Your task to perform on an android device: Open Chrome and go to the settings page Image 0: 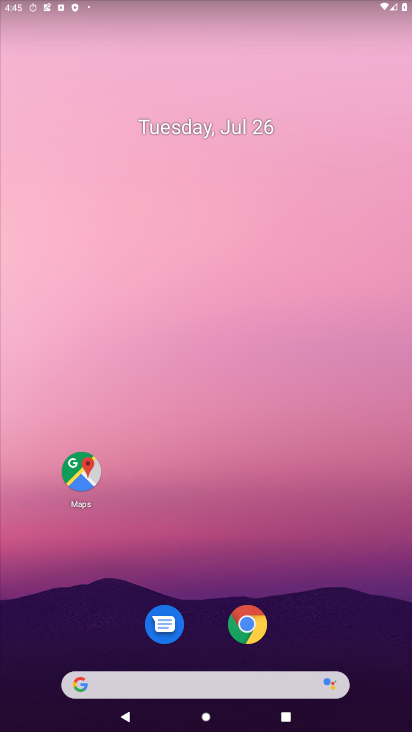
Step 0: drag from (338, 623) to (407, 29)
Your task to perform on an android device: Open Chrome and go to the settings page Image 1: 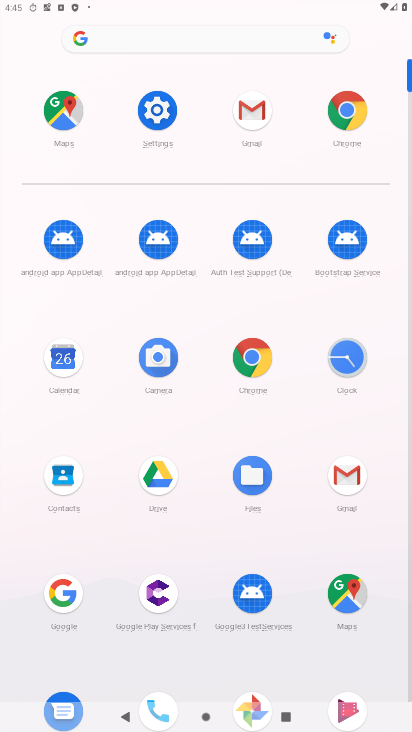
Step 1: click (259, 356)
Your task to perform on an android device: Open Chrome and go to the settings page Image 2: 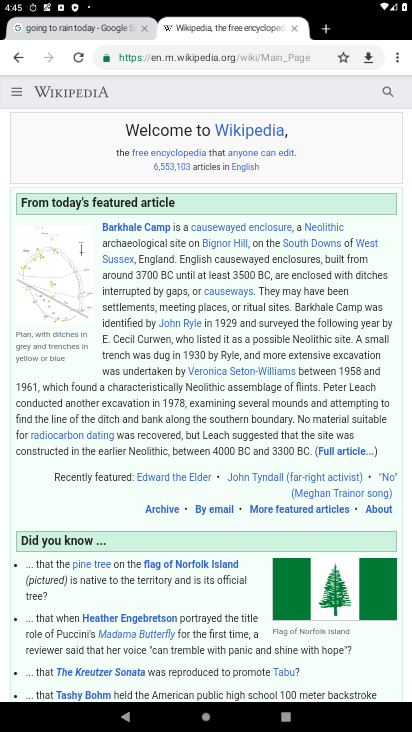
Step 2: click (398, 58)
Your task to perform on an android device: Open Chrome and go to the settings page Image 3: 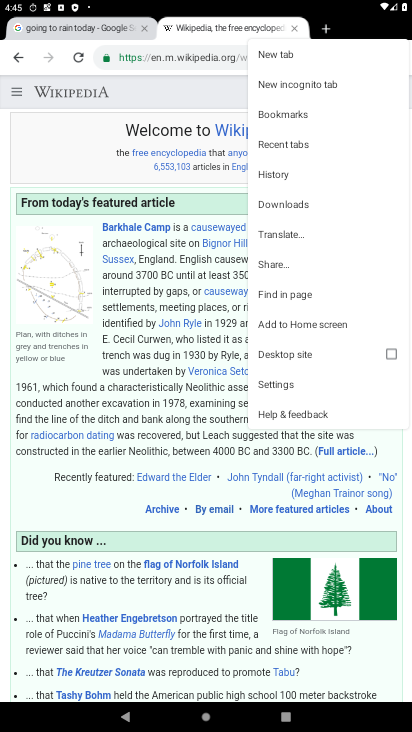
Step 3: click (304, 384)
Your task to perform on an android device: Open Chrome and go to the settings page Image 4: 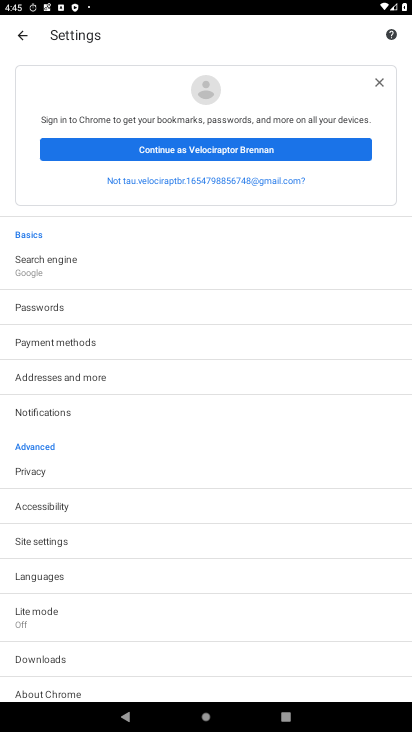
Step 4: task complete